Your task to perform on an android device: View the shopping cart on amazon.com. Add "logitech g pro" to the cart on amazon.com Image 0: 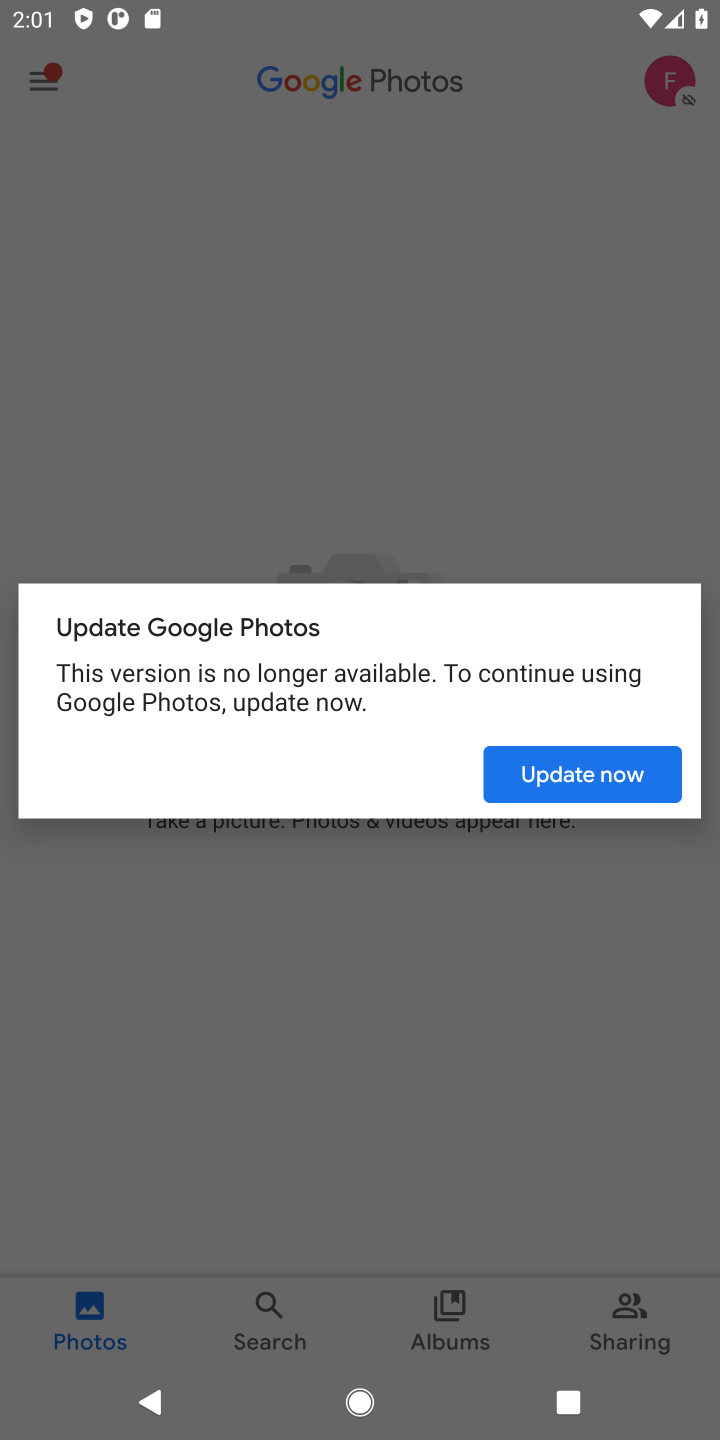
Step 0: press home button
Your task to perform on an android device: View the shopping cart on amazon.com. Add "logitech g pro" to the cart on amazon.com Image 1: 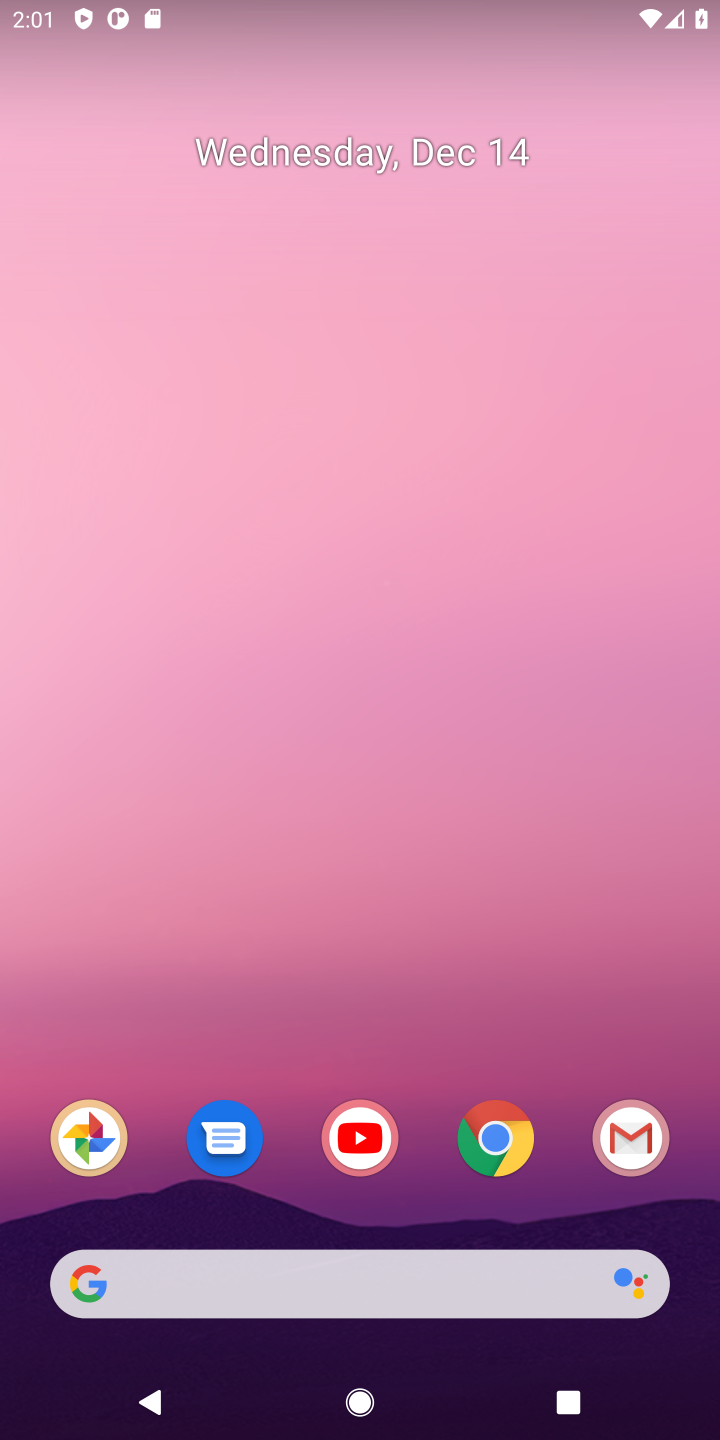
Step 1: click (502, 1141)
Your task to perform on an android device: View the shopping cart on amazon.com. Add "logitech g pro" to the cart on amazon.com Image 2: 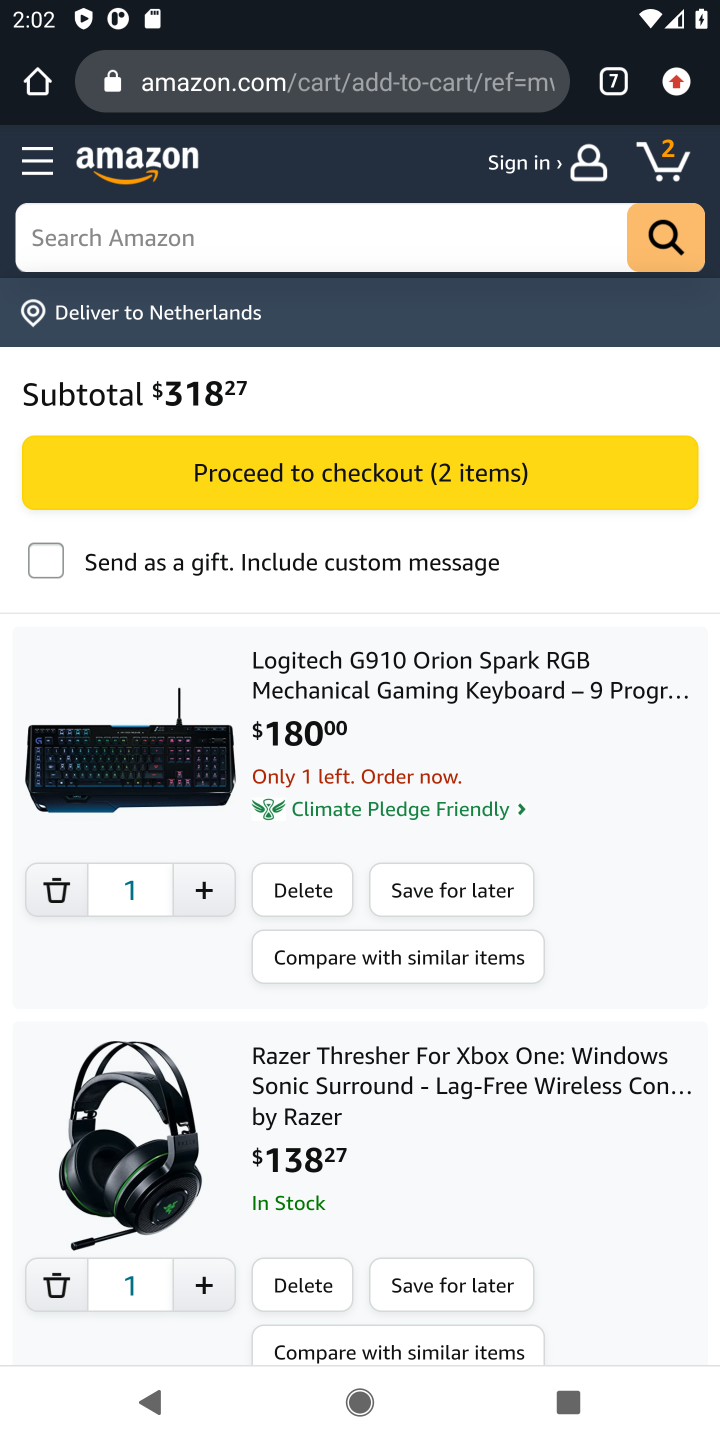
Step 2: click (154, 216)
Your task to perform on an android device: View the shopping cart on amazon.com. Add "logitech g pro" to the cart on amazon.com Image 3: 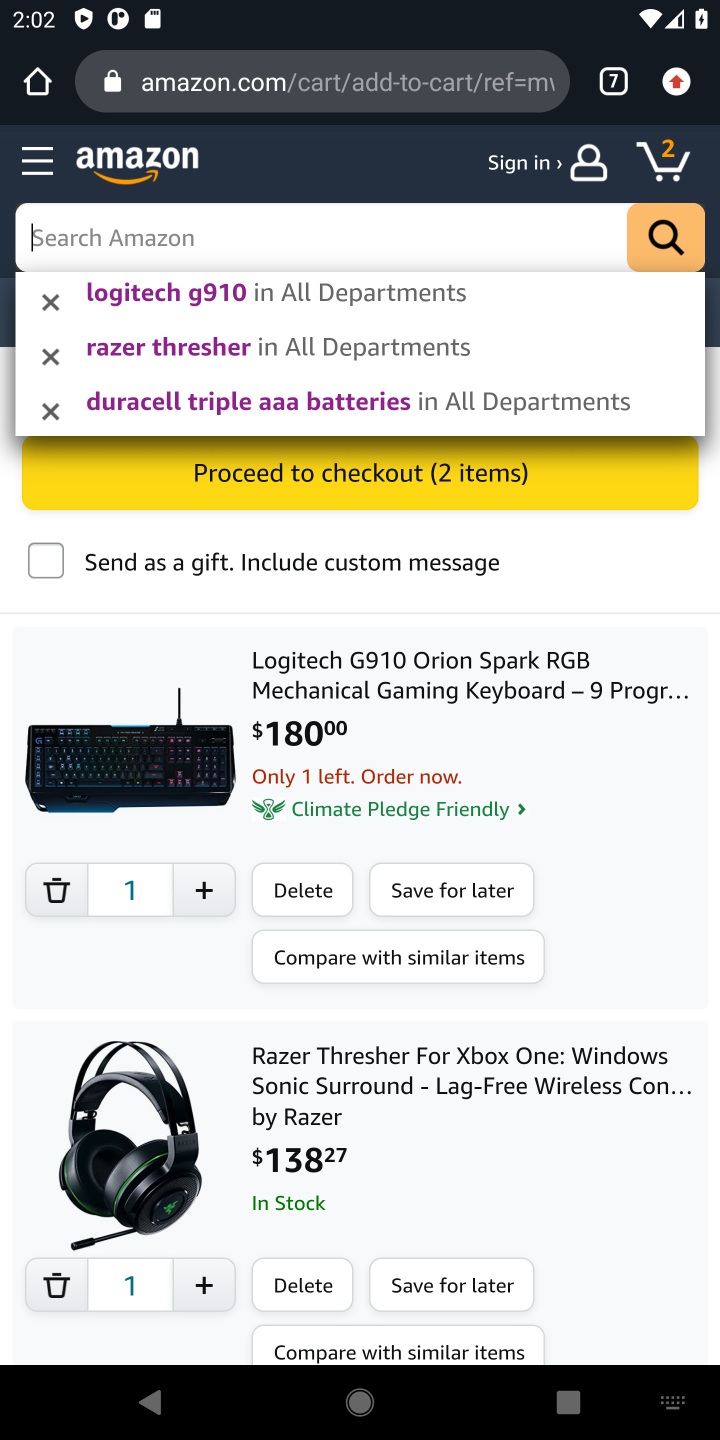
Step 3: type "logitech g pro"
Your task to perform on an android device: View the shopping cart on amazon.com. Add "logitech g pro" to the cart on amazon.com Image 4: 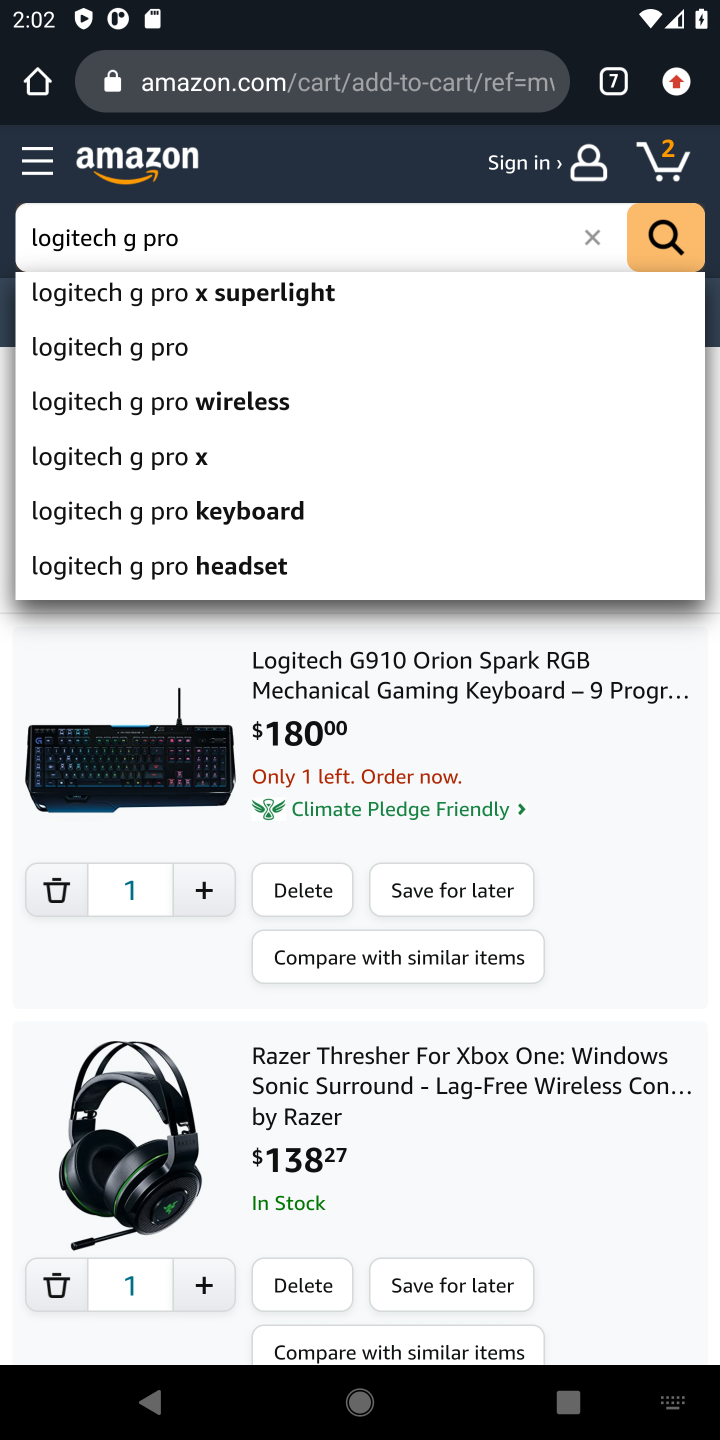
Step 4: click (87, 341)
Your task to perform on an android device: View the shopping cart on amazon.com. Add "logitech g pro" to the cart on amazon.com Image 5: 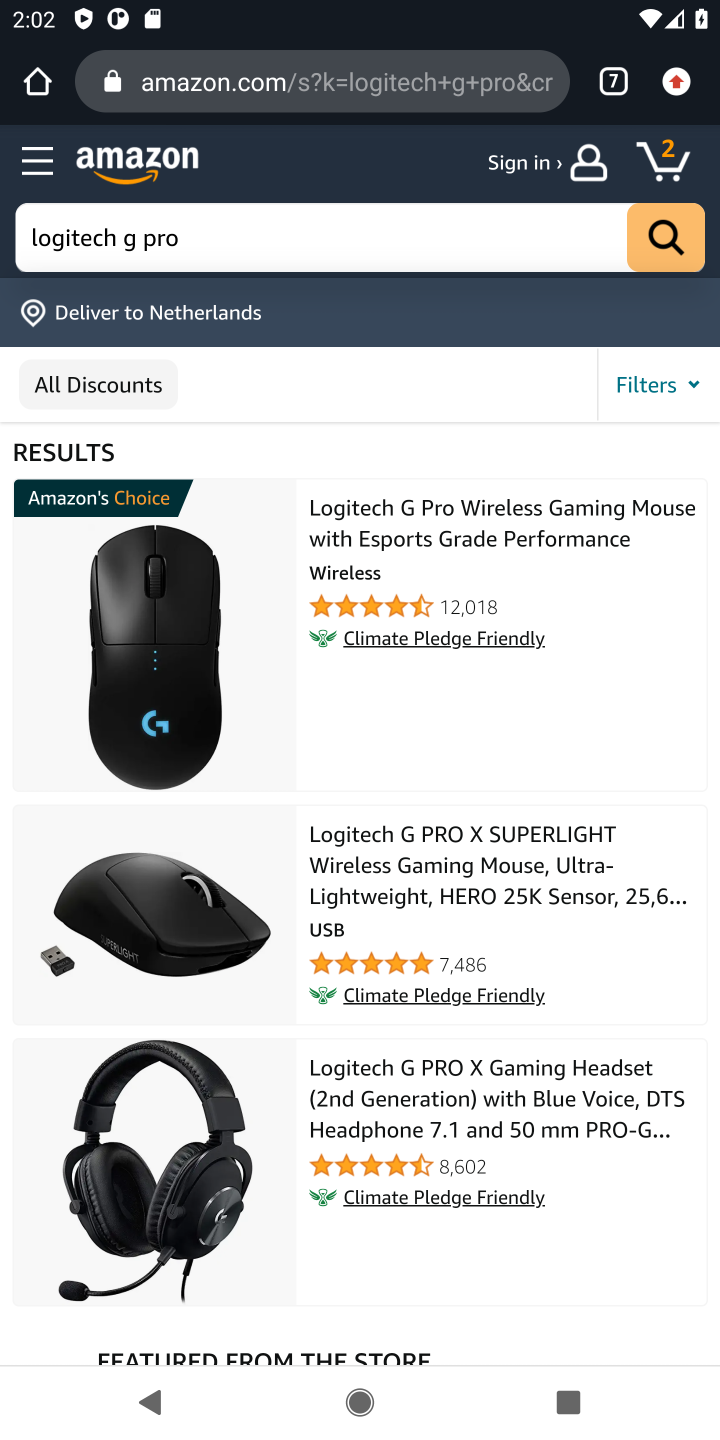
Step 5: click (468, 533)
Your task to perform on an android device: View the shopping cart on amazon.com. Add "logitech g pro" to the cart on amazon.com Image 6: 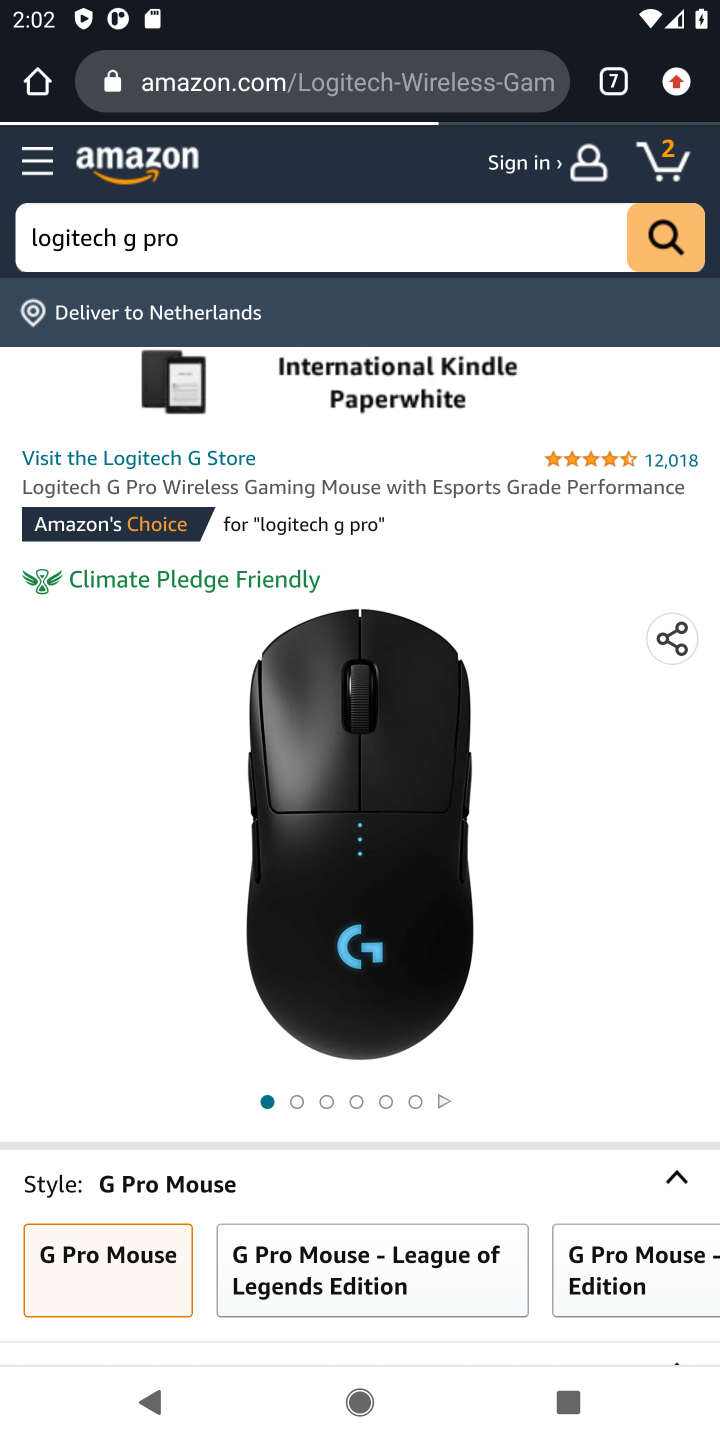
Step 6: drag from (509, 1192) to (537, 514)
Your task to perform on an android device: View the shopping cart on amazon.com. Add "logitech g pro" to the cart on amazon.com Image 7: 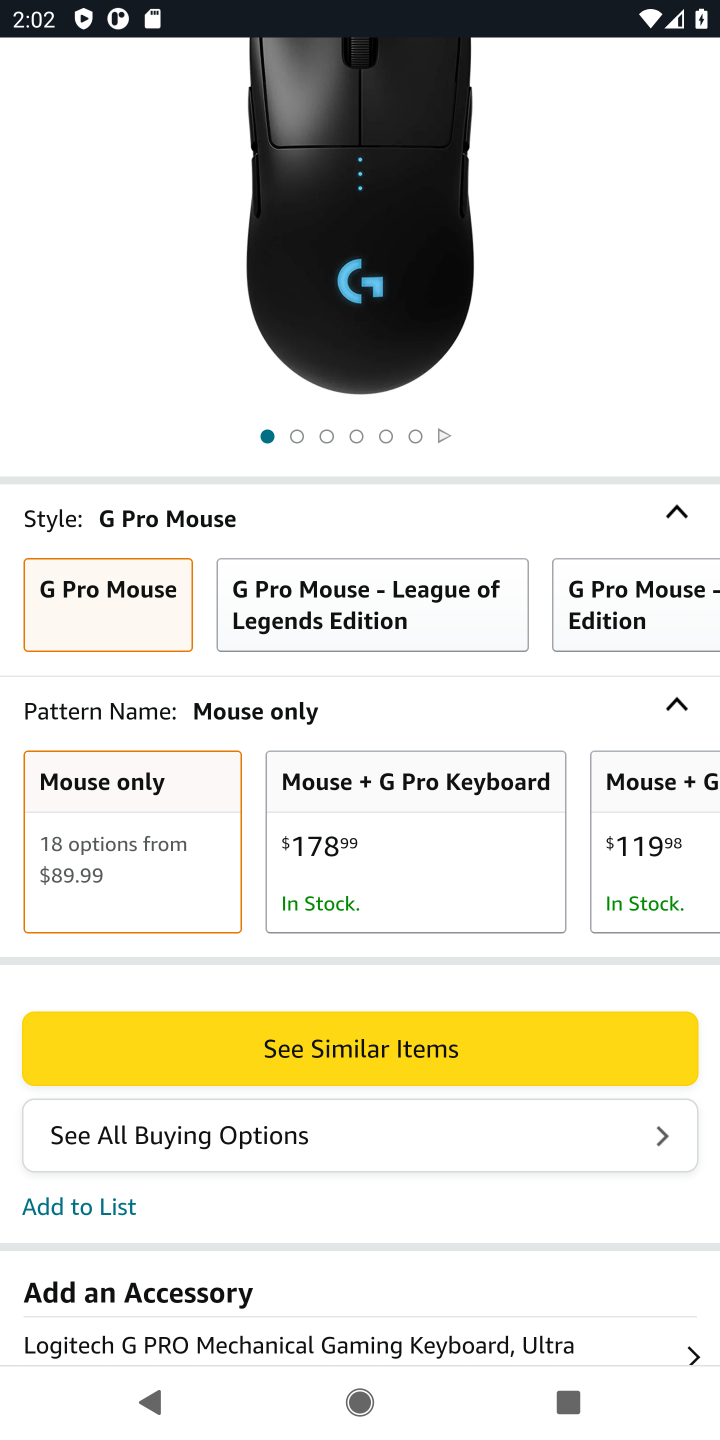
Step 7: click (481, 1049)
Your task to perform on an android device: View the shopping cart on amazon.com. Add "logitech g pro" to the cart on amazon.com Image 8: 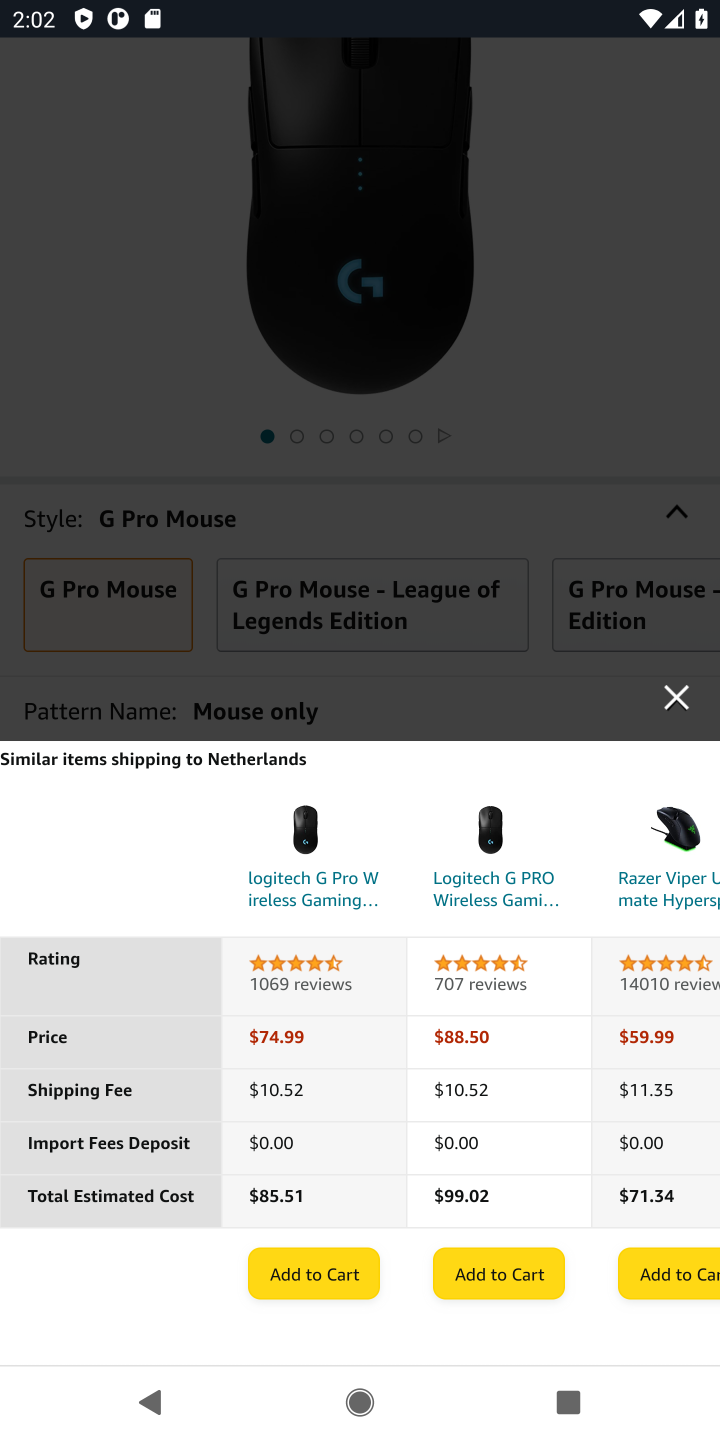
Step 8: click (316, 1269)
Your task to perform on an android device: View the shopping cart on amazon.com. Add "logitech g pro" to the cart on amazon.com Image 9: 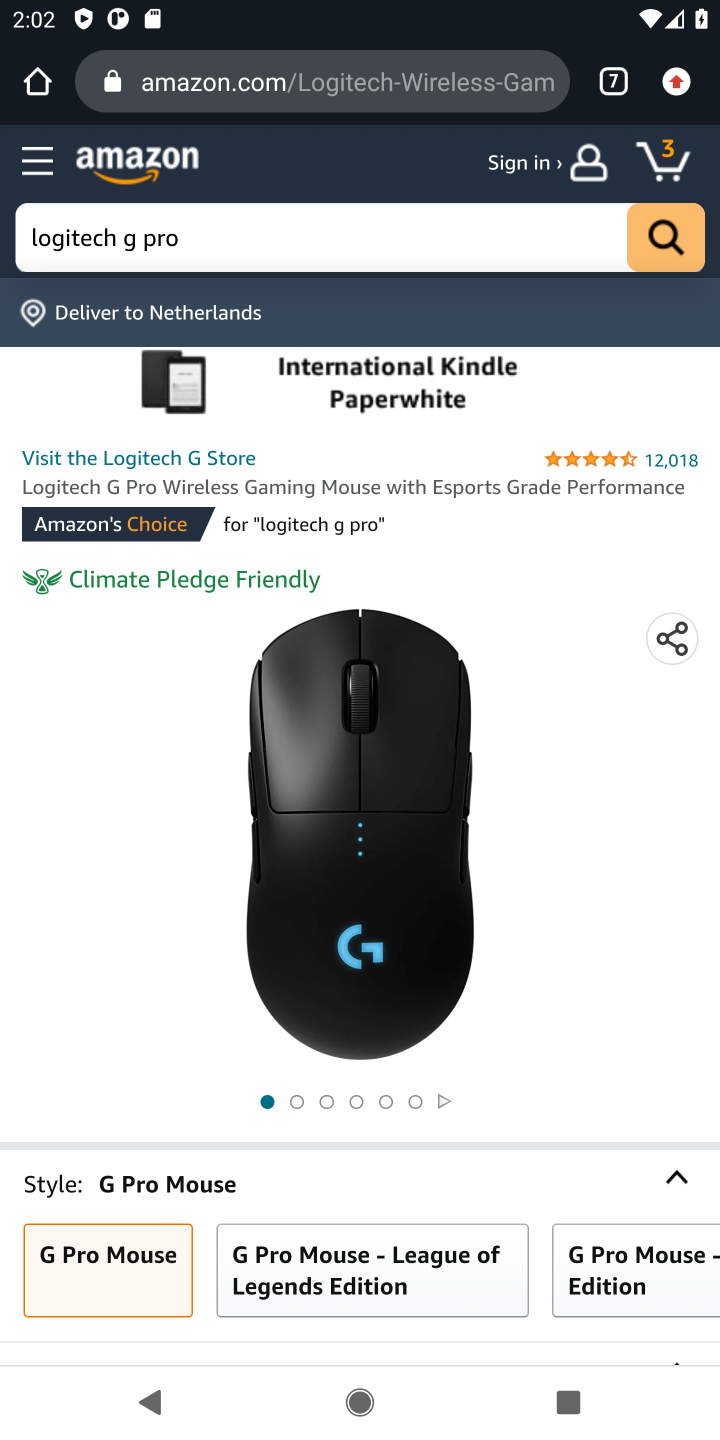
Step 9: task complete